Your task to perform on an android device: check battery use Image 0: 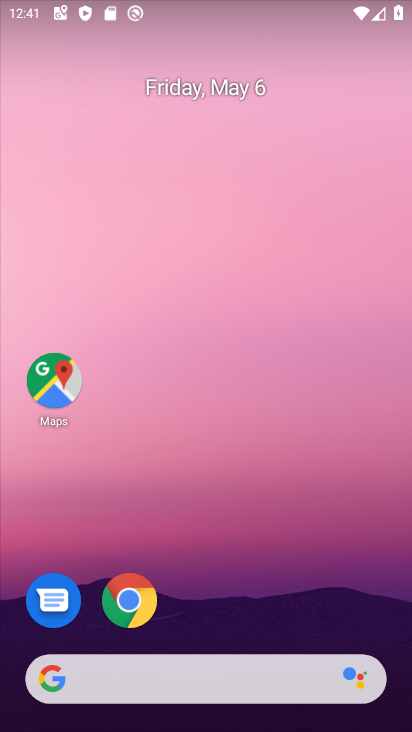
Step 0: drag from (345, 620) to (335, 47)
Your task to perform on an android device: check battery use Image 1: 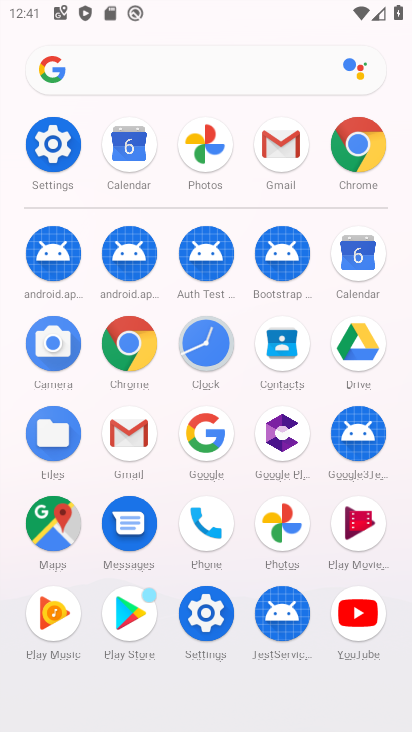
Step 1: click (206, 604)
Your task to perform on an android device: check battery use Image 2: 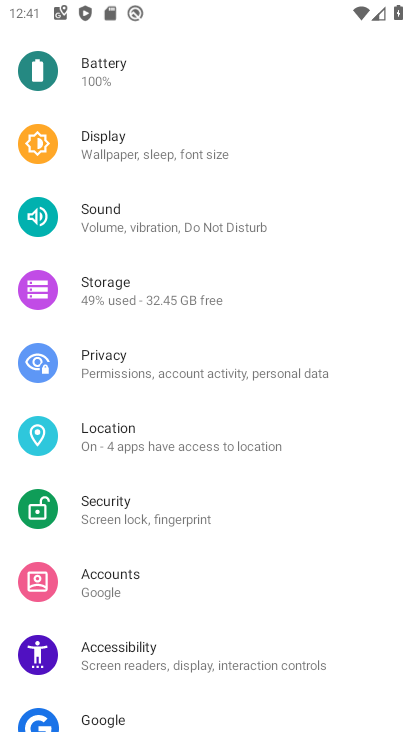
Step 2: click (123, 65)
Your task to perform on an android device: check battery use Image 3: 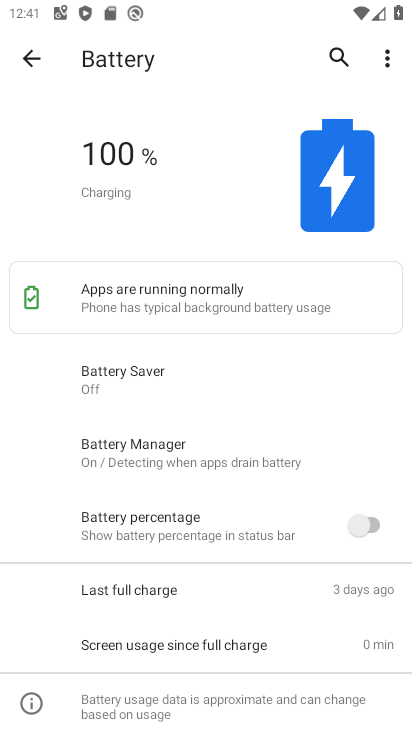
Step 3: task complete